Your task to perform on an android device: turn off improve location accuracy Image 0: 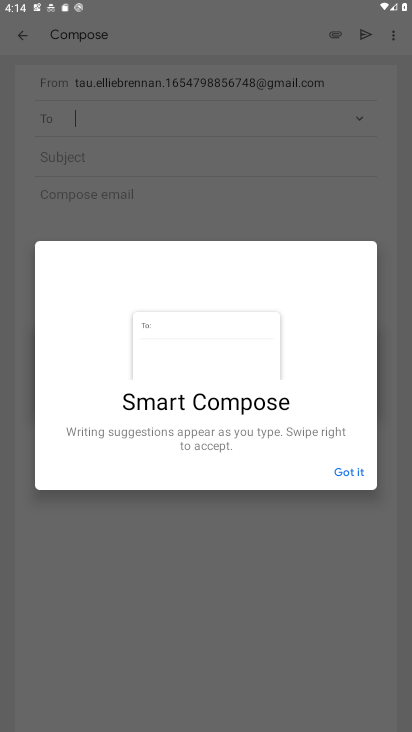
Step 0: press home button
Your task to perform on an android device: turn off improve location accuracy Image 1: 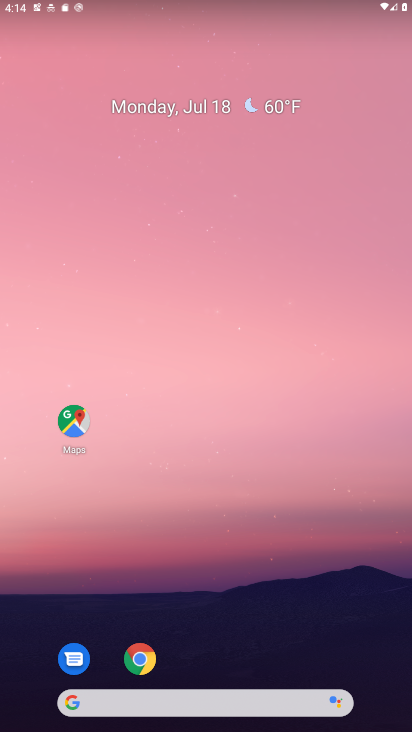
Step 1: drag from (245, 650) to (296, 105)
Your task to perform on an android device: turn off improve location accuracy Image 2: 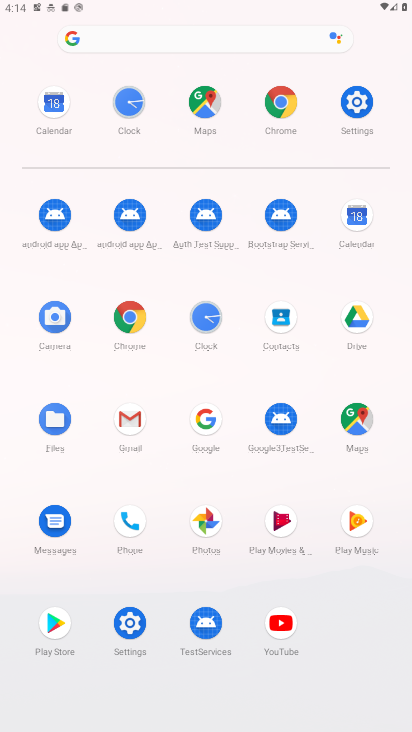
Step 2: click (359, 103)
Your task to perform on an android device: turn off improve location accuracy Image 3: 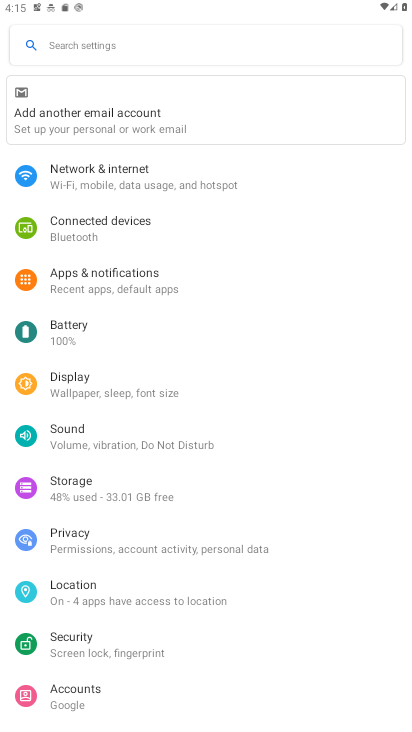
Step 3: click (101, 585)
Your task to perform on an android device: turn off improve location accuracy Image 4: 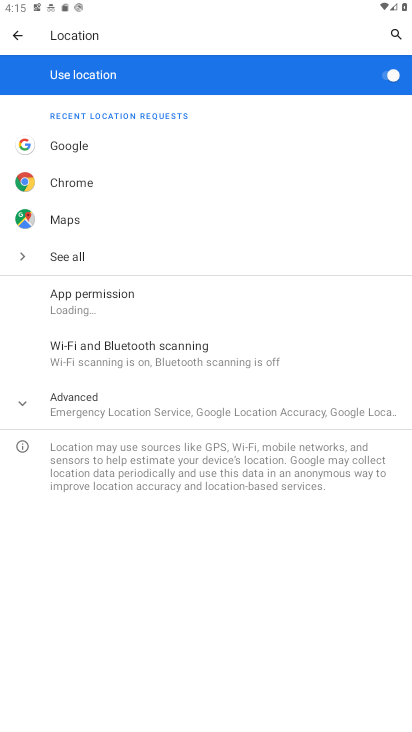
Step 4: click (152, 412)
Your task to perform on an android device: turn off improve location accuracy Image 5: 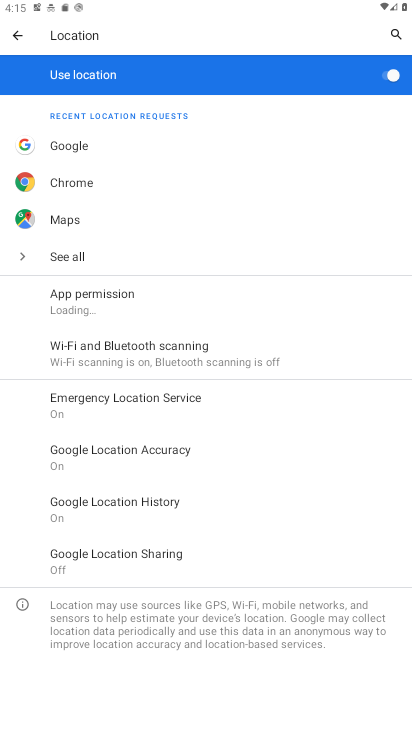
Step 5: click (151, 460)
Your task to perform on an android device: turn off improve location accuracy Image 6: 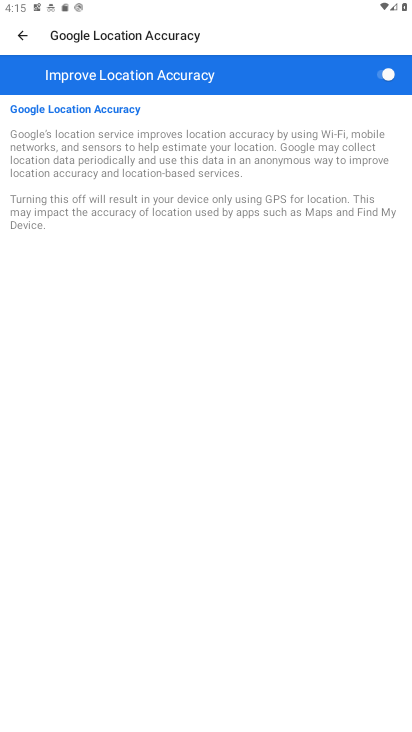
Step 6: task complete